Your task to perform on an android device: toggle location history Image 0: 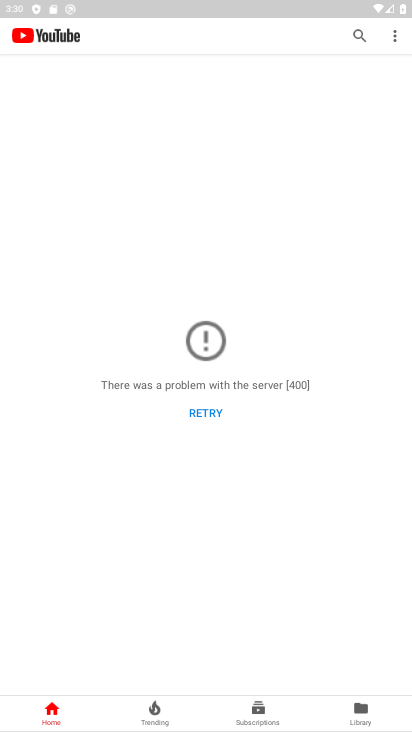
Step 0: press back button
Your task to perform on an android device: toggle location history Image 1: 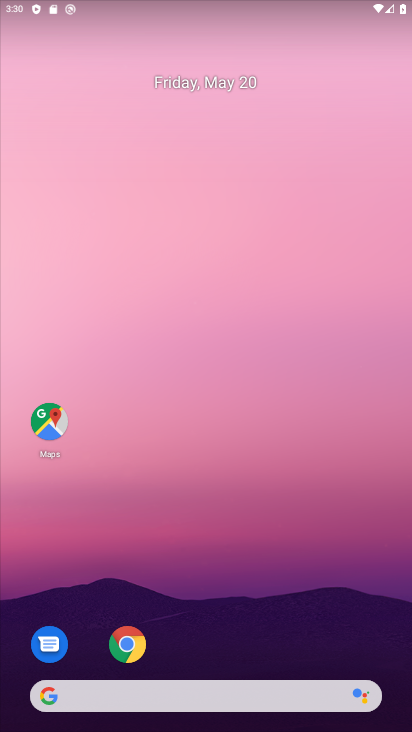
Step 1: drag from (218, 595) to (297, 88)
Your task to perform on an android device: toggle location history Image 2: 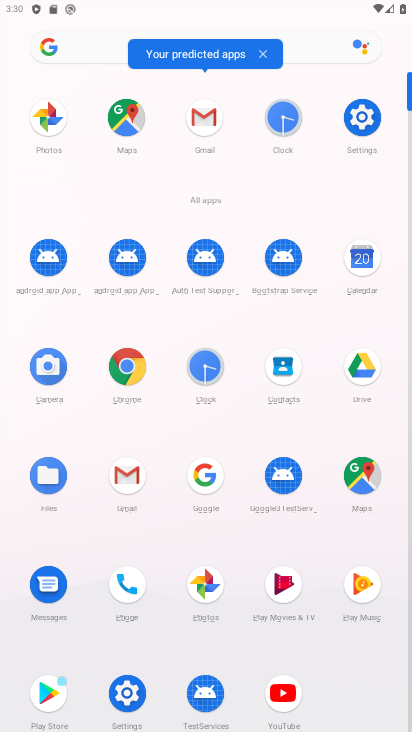
Step 2: click (378, 117)
Your task to perform on an android device: toggle location history Image 3: 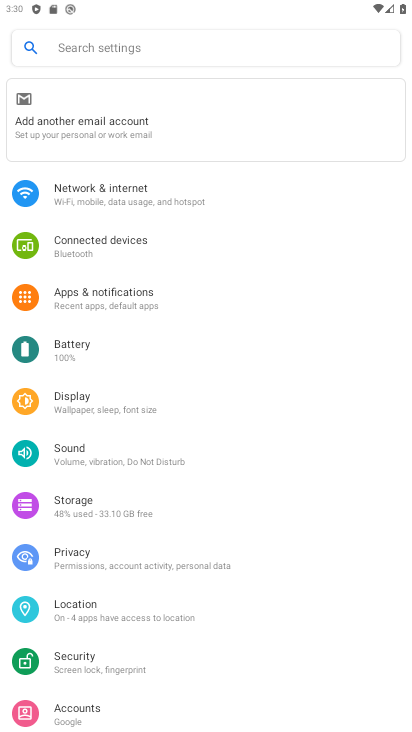
Step 3: click (87, 604)
Your task to perform on an android device: toggle location history Image 4: 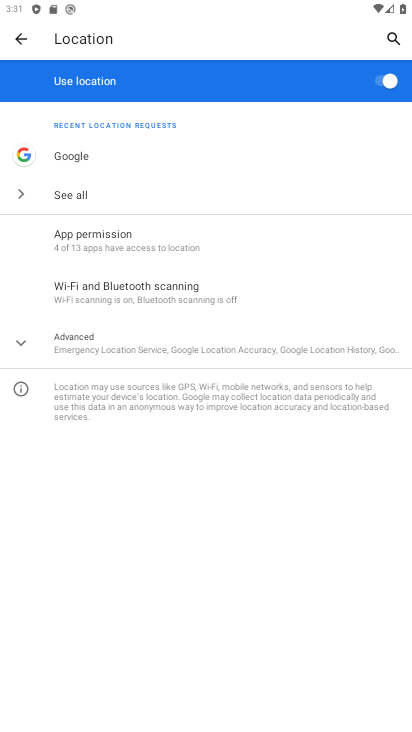
Step 4: click (157, 342)
Your task to perform on an android device: toggle location history Image 5: 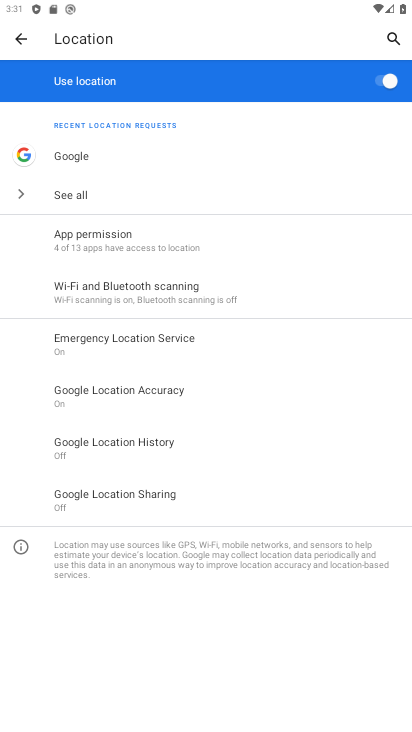
Step 5: click (165, 441)
Your task to perform on an android device: toggle location history Image 6: 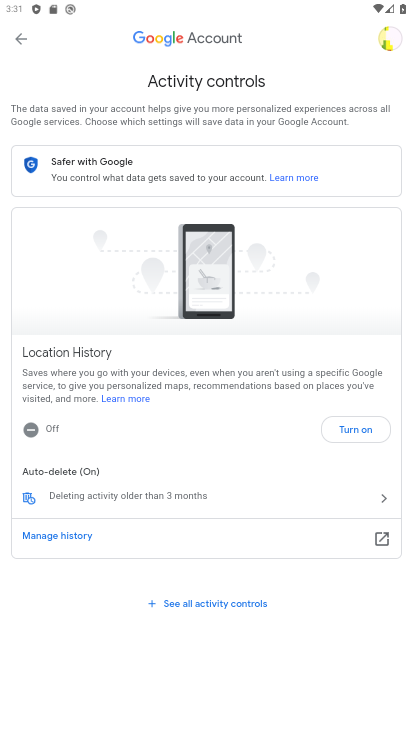
Step 6: click (354, 428)
Your task to perform on an android device: toggle location history Image 7: 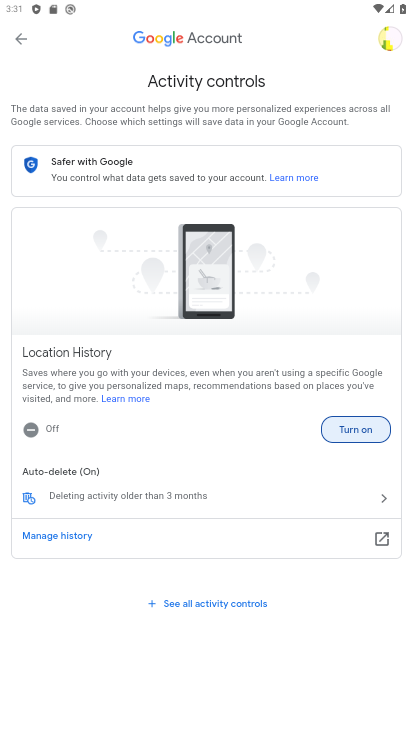
Step 7: click (348, 428)
Your task to perform on an android device: toggle location history Image 8: 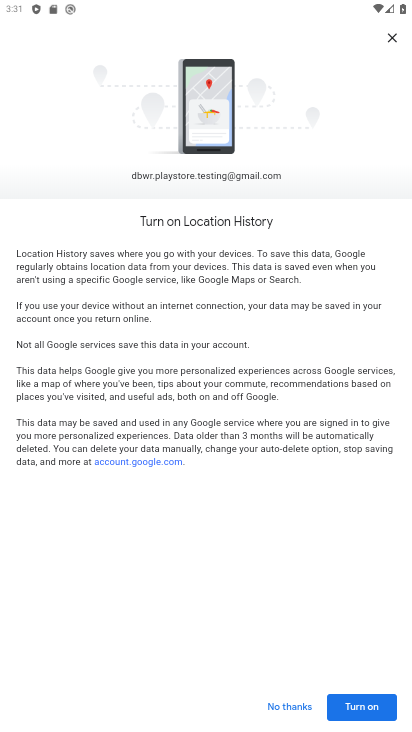
Step 8: click (356, 705)
Your task to perform on an android device: toggle location history Image 9: 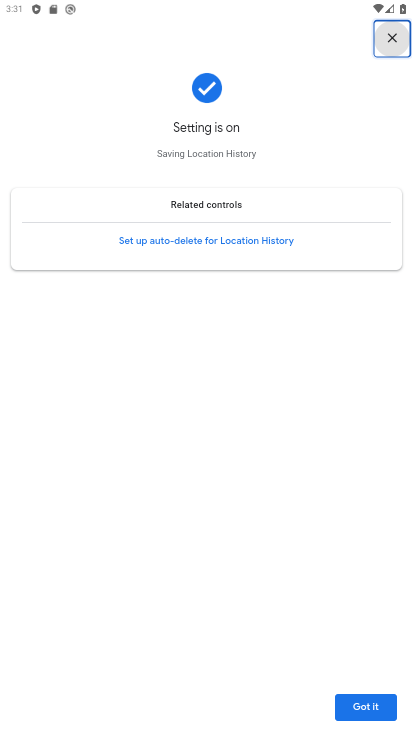
Step 9: task complete